Your task to perform on an android device: Open Google Chrome Image 0: 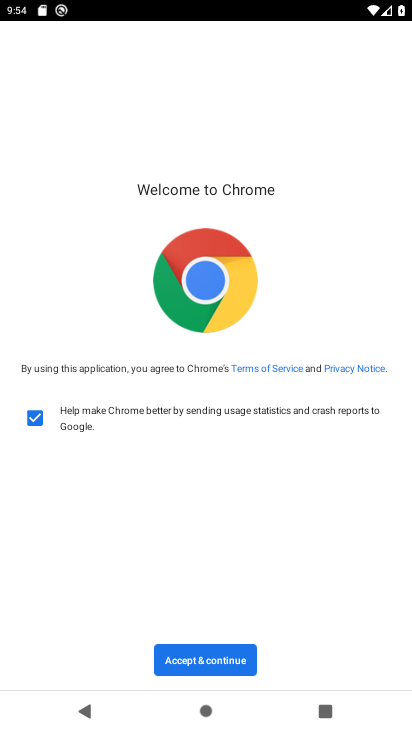
Step 0: press home button
Your task to perform on an android device: Open Google Chrome Image 1: 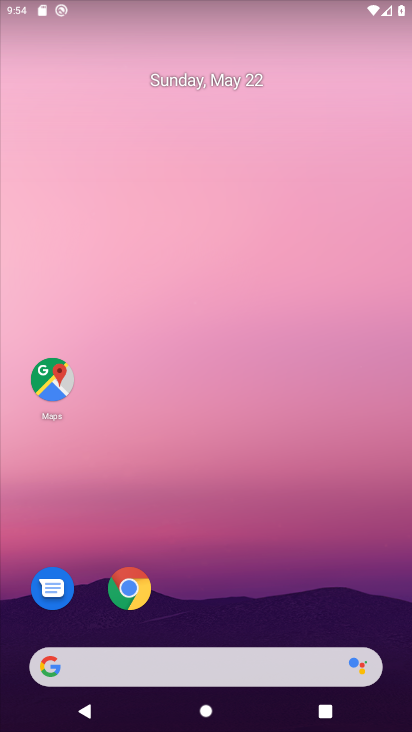
Step 1: click (132, 591)
Your task to perform on an android device: Open Google Chrome Image 2: 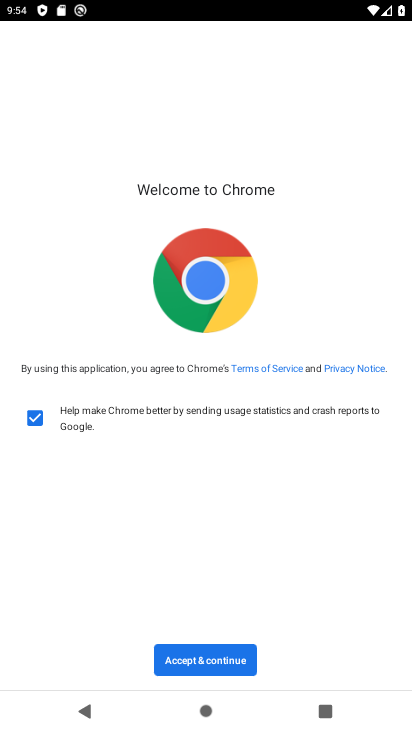
Step 2: click (207, 662)
Your task to perform on an android device: Open Google Chrome Image 3: 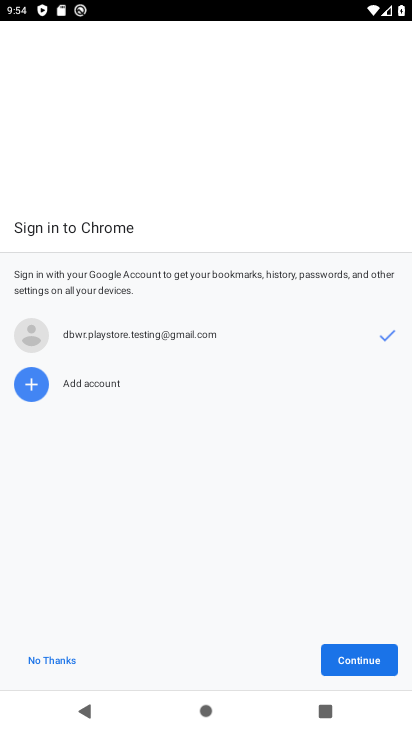
Step 3: click (371, 652)
Your task to perform on an android device: Open Google Chrome Image 4: 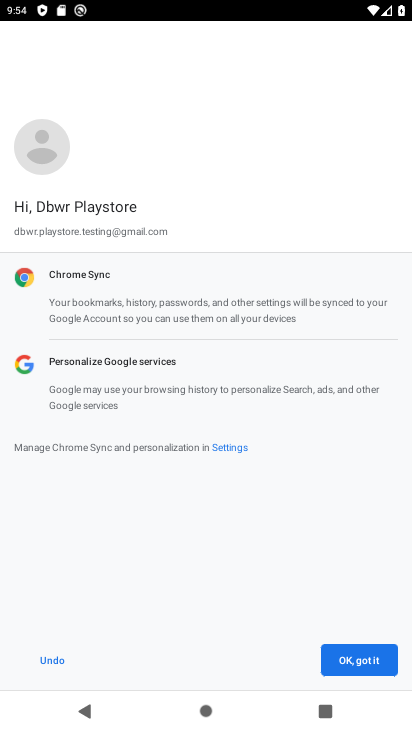
Step 4: click (371, 652)
Your task to perform on an android device: Open Google Chrome Image 5: 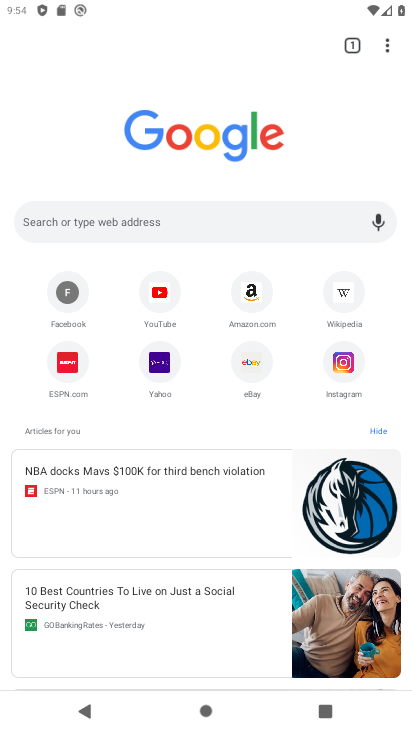
Step 5: task complete